Your task to perform on an android device: snooze an email in the gmail app Image 0: 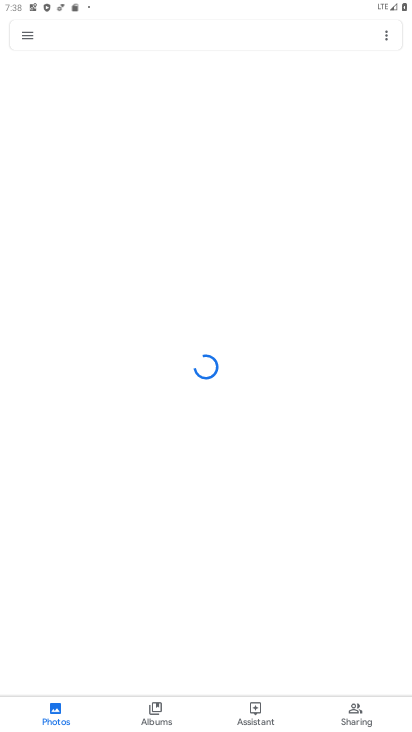
Step 0: press home button
Your task to perform on an android device: snooze an email in the gmail app Image 1: 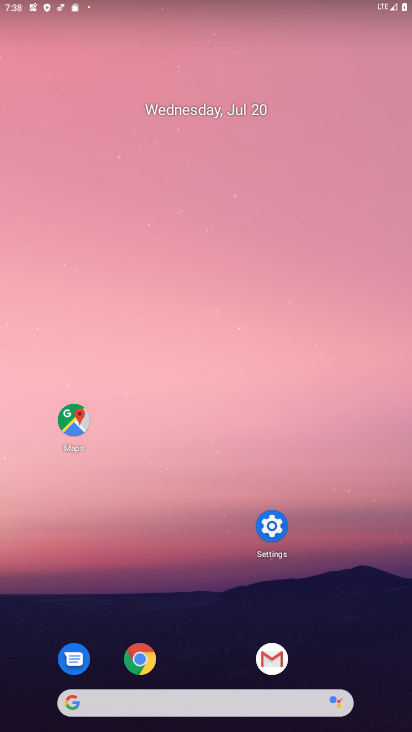
Step 1: click (285, 655)
Your task to perform on an android device: snooze an email in the gmail app Image 2: 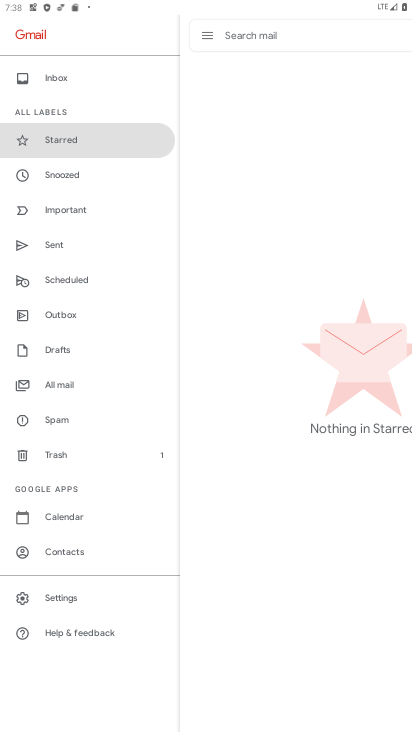
Step 2: click (75, 175)
Your task to perform on an android device: snooze an email in the gmail app Image 3: 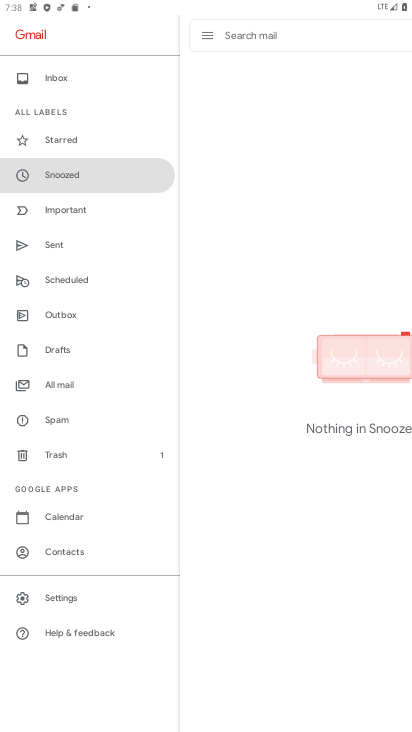
Step 3: task complete